Your task to perform on an android device: check storage Image 0: 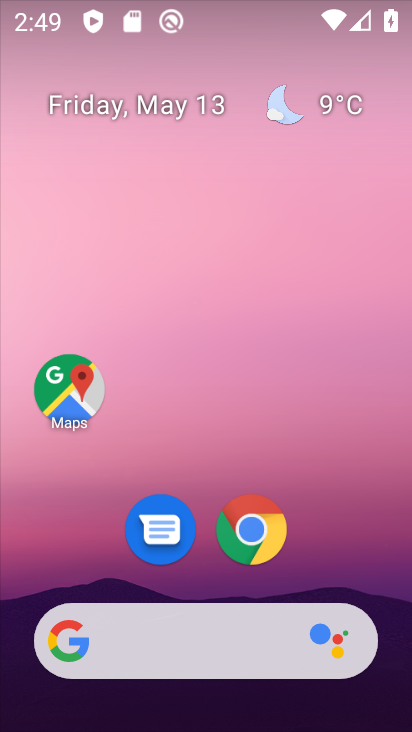
Step 0: drag from (183, 597) to (264, 141)
Your task to perform on an android device: check storage Image 1: 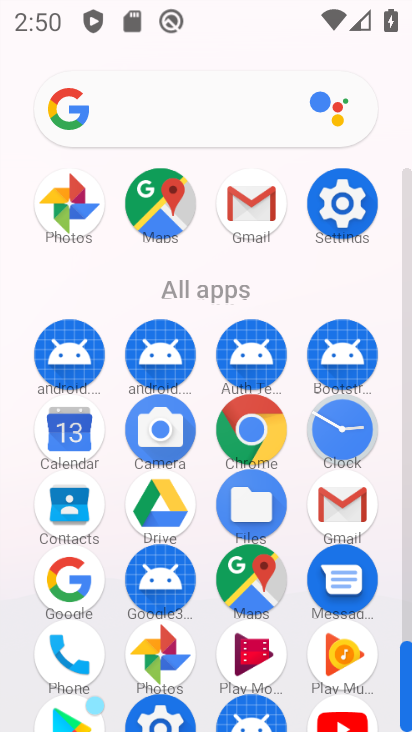
Step 1: drag from (157, 691) to (242, 461)
Your task to perform on an android device: check storage Image 2: 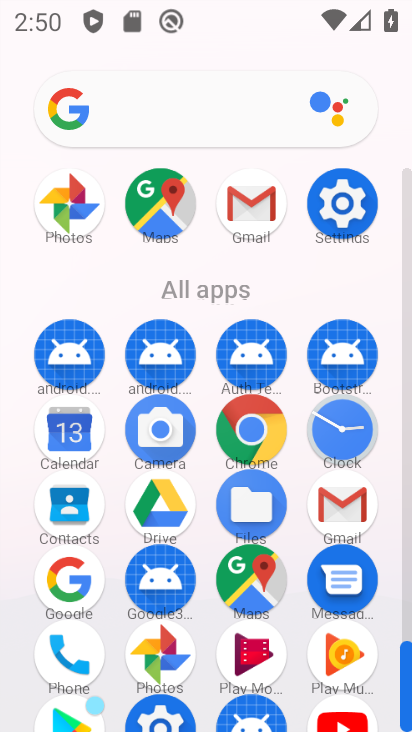
Step 2: drag from (185, 684) to (236, 526)
Your task to perform on an android device: check storage Image 3: 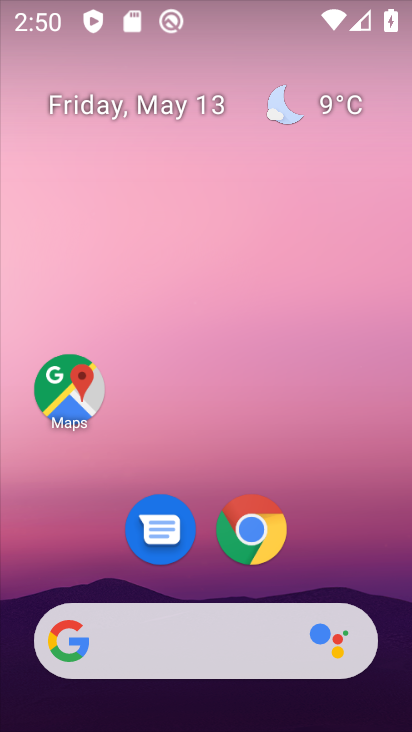
Step 3: drag from (192, 584) to (314, 49)
Your task to perform on an android device: check storage Image 4: 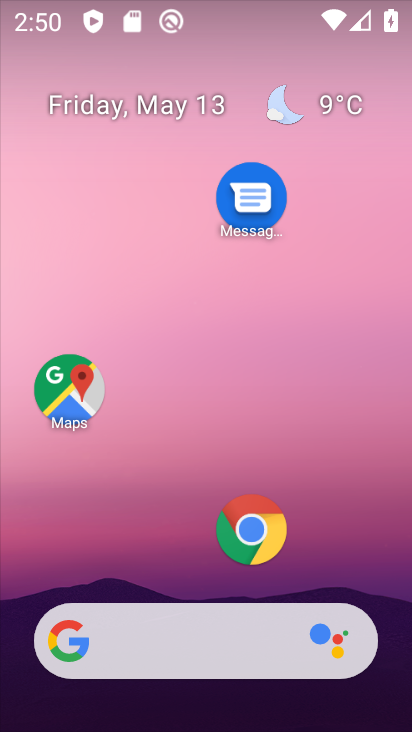
Step 4: drag from (140, 597) to (294, 41)
Your task to perform on an android device: check storage Image 5: 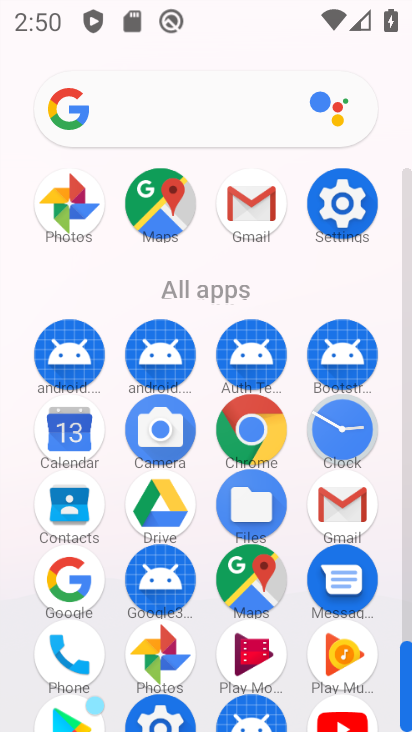
Step 5: drag from (143, 671) to (236, 459)
Your task to perform on an android device: check storage Image 6: 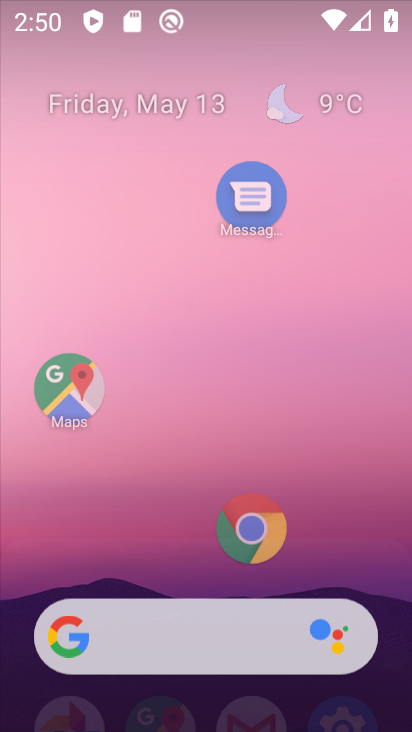
Step 6: click (155, 720)
Your task to perform on an android device: check storage Image 7: 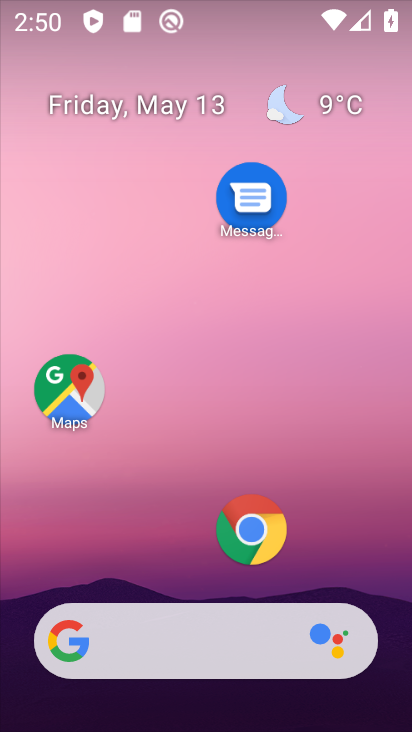
Step 7: drag from (155, 711) to (333, 87)
Your task to perform on an android device: check storage Image 8: 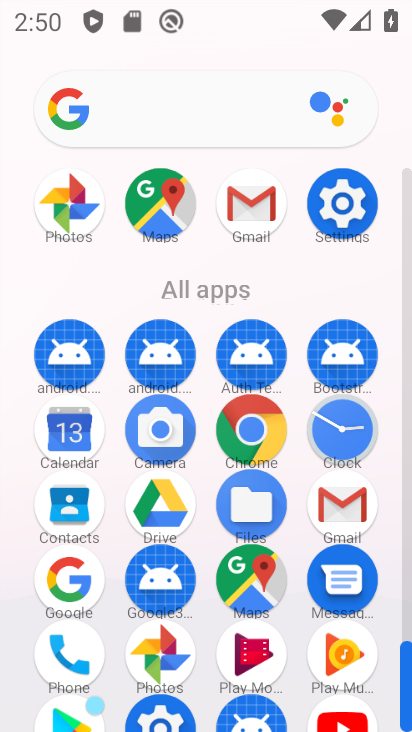
Step 8: click (336, 200)
Your task to perform on an android device: check storage Image 9: 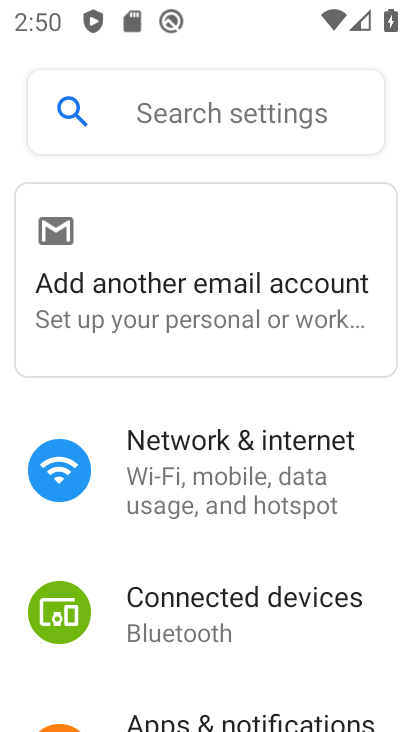
Step 9: drag from (215, 646) to (353, 269)
Your task to perform on an android device: check storage Image 10: 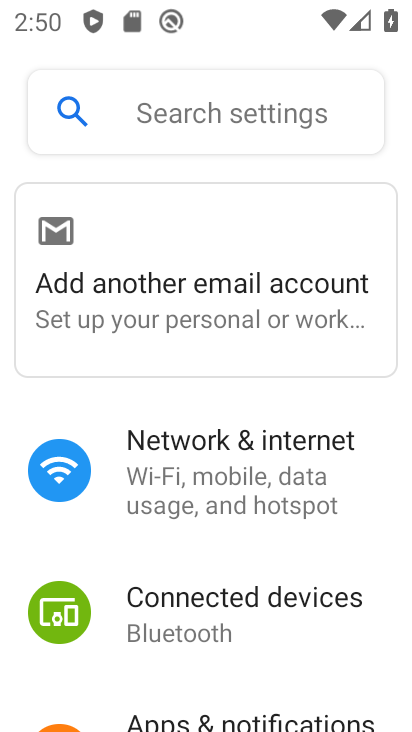
Step 10: drag from (158, 620) to (342, 270)
Your task to perform on an android device: check storage Image 11: 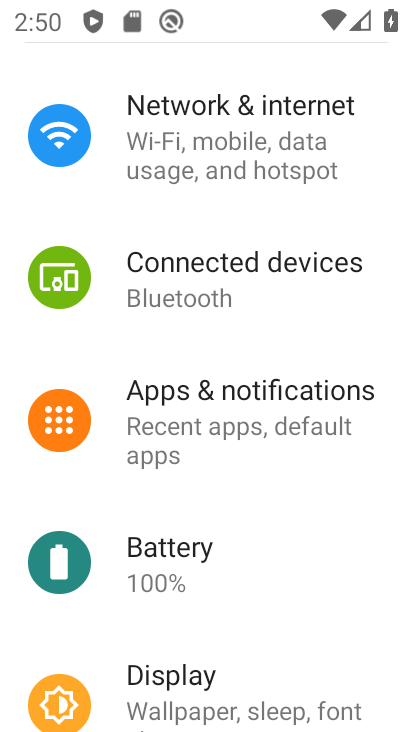
Step 11: drag from (217, 624) to (329, 299)
Your task to perform on an android device: check storage Image 12: 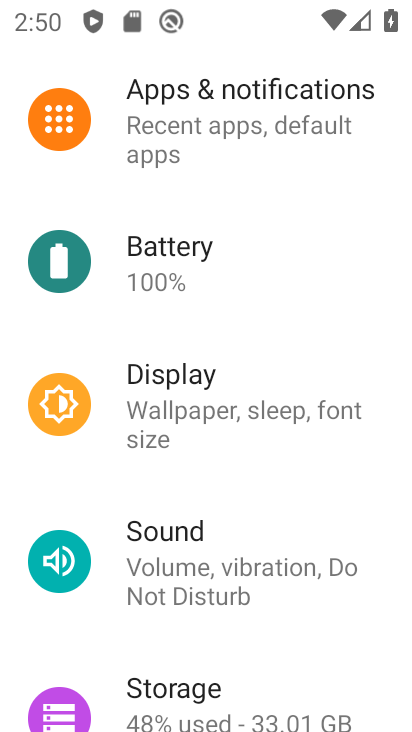
Step 12: drag from (187, 625) to (228, 448)
Your task to perform on an android device: check storage Image 13: 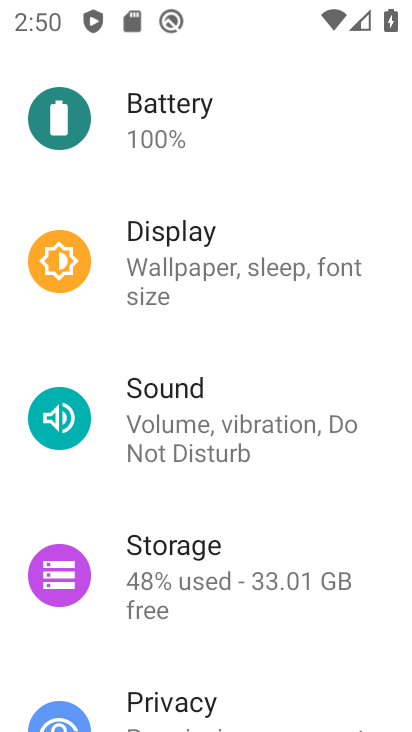
Step 13: click (185, 565)
Your task to perform on an android device: check storage Image 14: 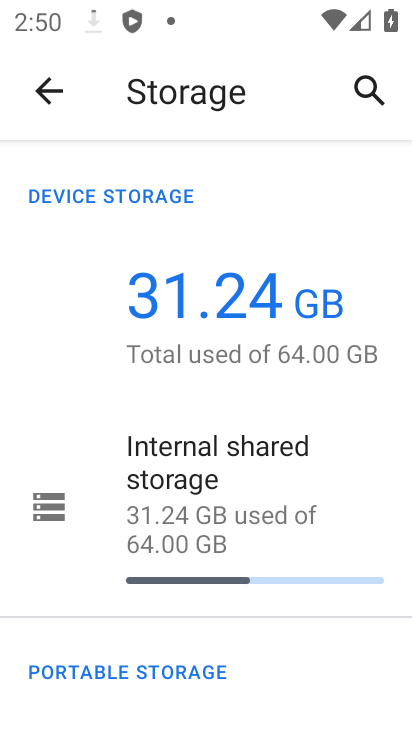
Step 14: task complete